Your task to perform on an android device: Open battery settings Image 0: 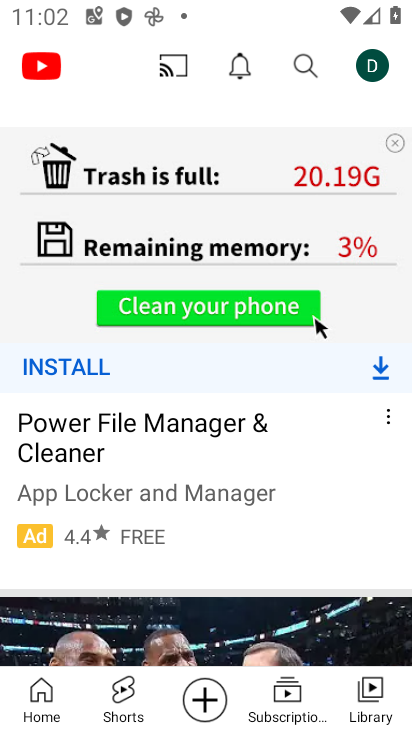
Step 0: press home button
Your task to perform on an android device: Open battery settings Image 1: 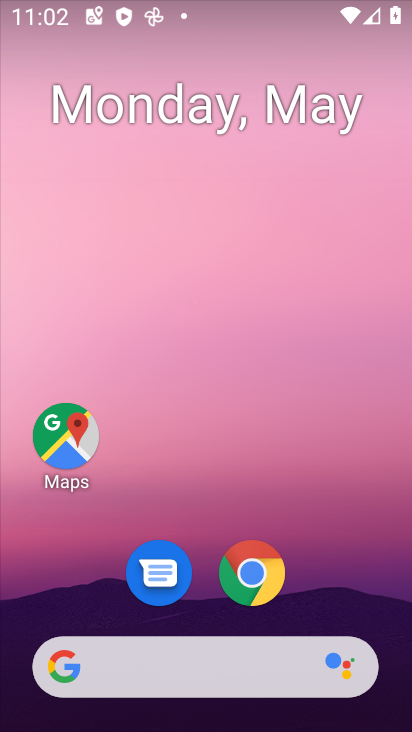
Step 1: drag from (326, 575) to (278, 2)
Your task to perform on an android device: Open battery settings Image 2: 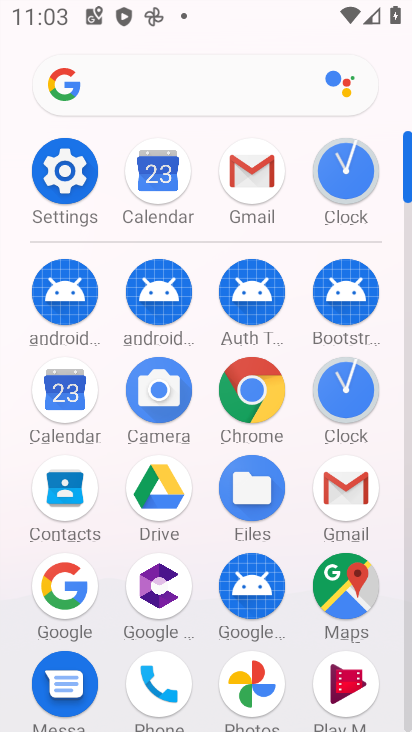
Step 2: click (75, 183)
Your task to perform on an android device: Open battery settings Image 3: 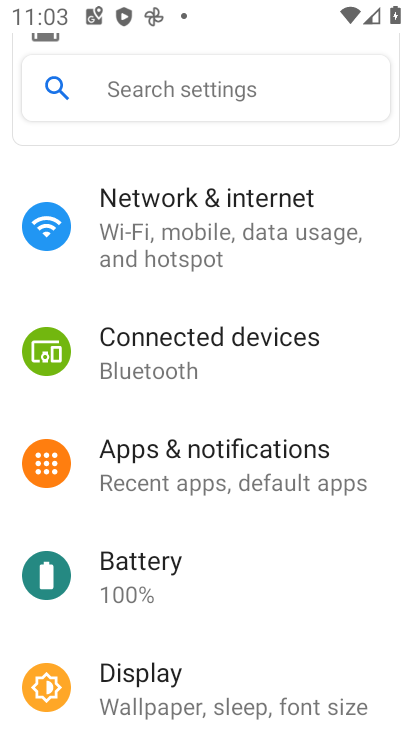
Step 3: click (198, 576)
Your task to perform on an android device: Open battery settings Image 4: 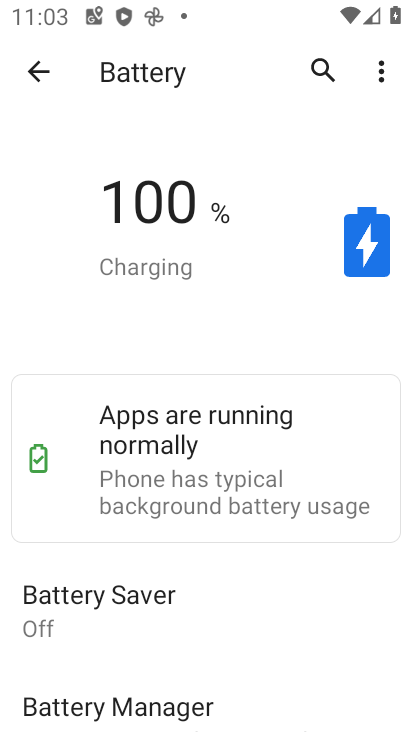
Step 4: task complete